Your task to perform on an android device: Do I have any events this weekend? Image 0: 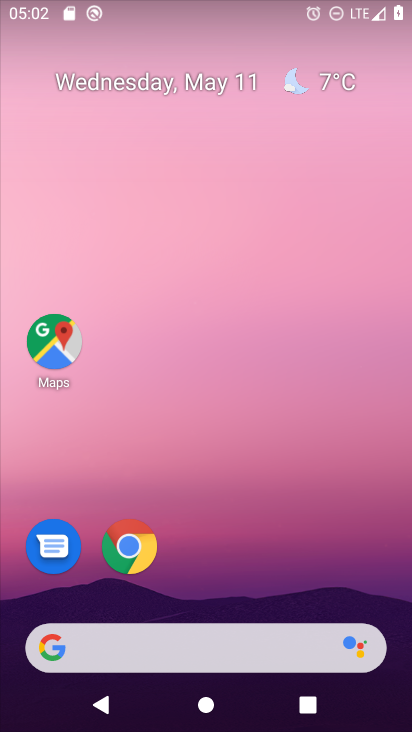
Step 0: drag from (296, 575) to (312, 68)
Your task to perform on an android device: Do I have any events this weekend? Image 1: 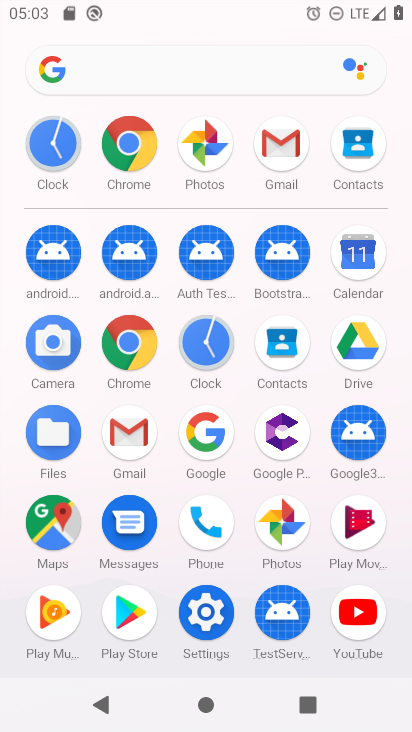
Step 1: click (360, 258)
Your task to perform on an android device: Do I have any events this weekend? Image 2: 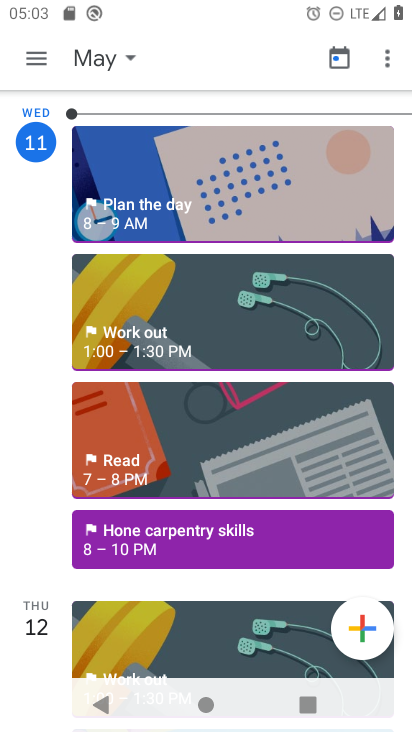
Step 2: click (115, 53)
Your task to perform on an android device: Do I have any events this weekend? Image 3: 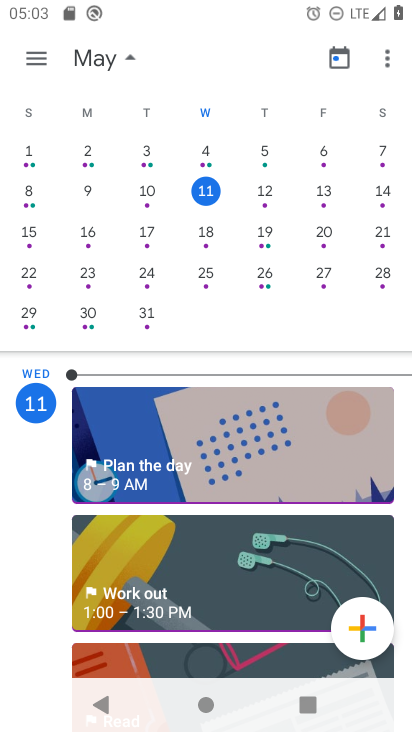
Step 3: click (381, 195)
Your task to perform on an android device: Do I have any events this weekend? Image 4: 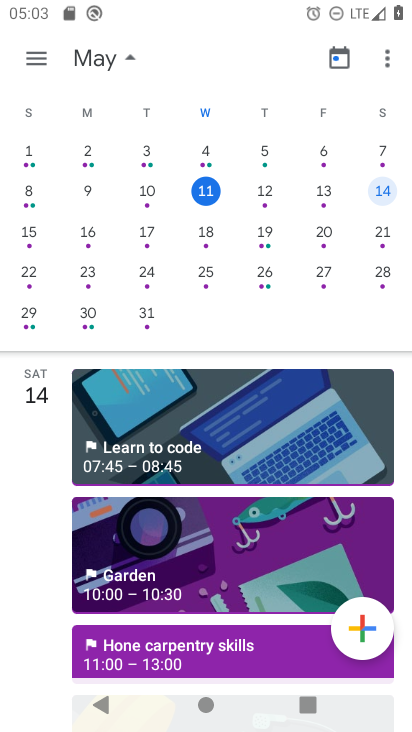
Step 4: click (383, 194)
Your task to perform on an android device: Do I have any events this weekend? Image 5: 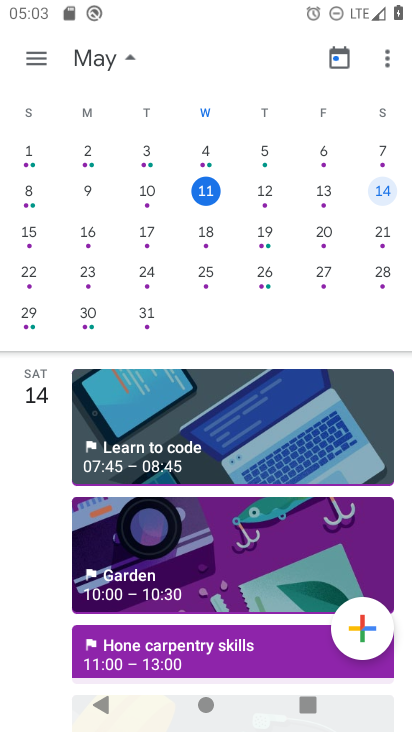
Step 5: click (383, 194)
Your task to perform on an android device: Do I have any events this weekend? Image 6: 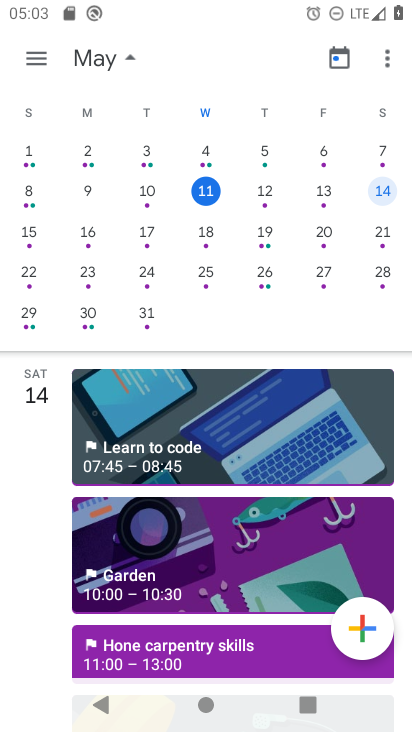
Step 6: task complete